Your task to perform on an android device: open a new tab in the chrome app Image 0: 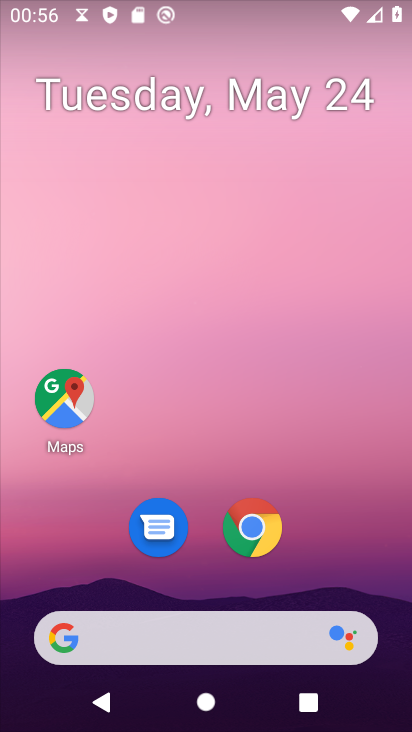
Step 0: press home button
Your task to perform on an android device: open a new tab in the chrome app Image 1: 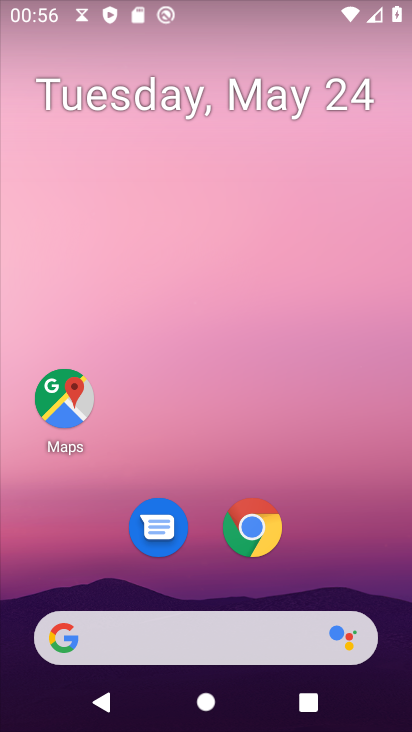
Step 1: click (250, 554)
Your task to perform on an android device: open a new tab in the chrome app Image 2: 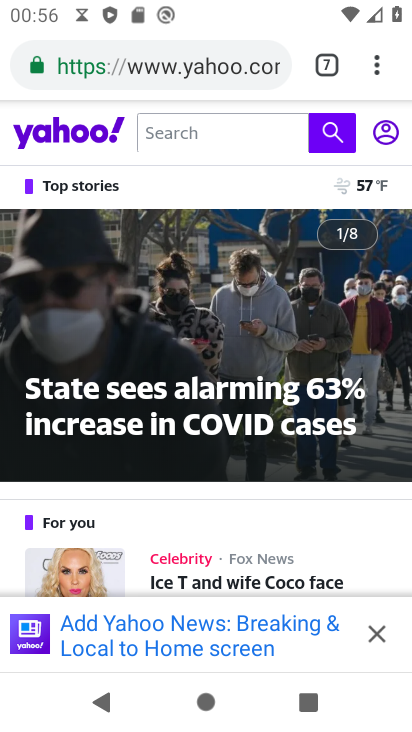
Step 2: task complete